Your task to perform on an android device: check android version Image 0: 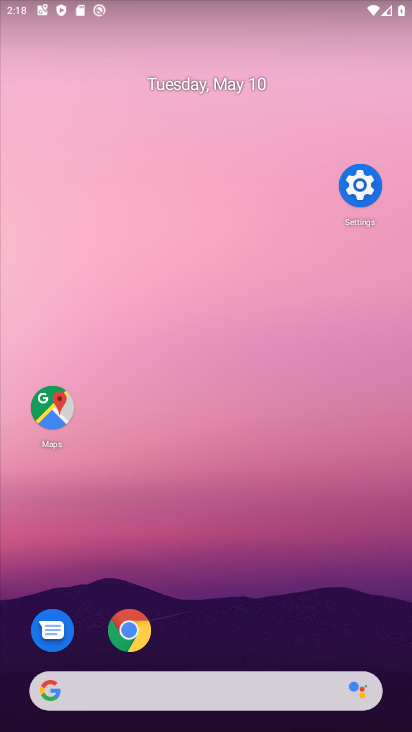
Step 0: drag from (341, 634) to (172, 78)
Your task to perform on an android device: check android version Image 1: 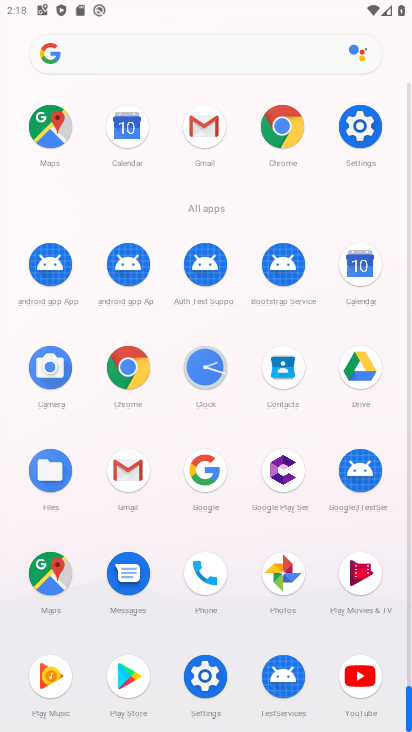
Step 1: click (275, 114)
Your task to perform on an android device: check android version Image 2: 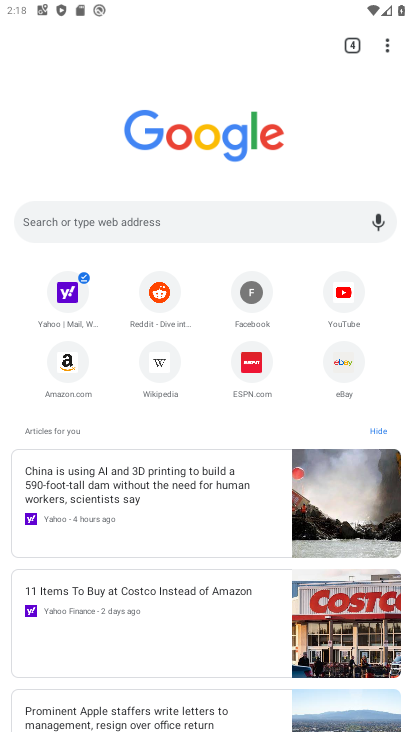
Step 2: press back button
Your task to perform on an android device: check android version Image 3: 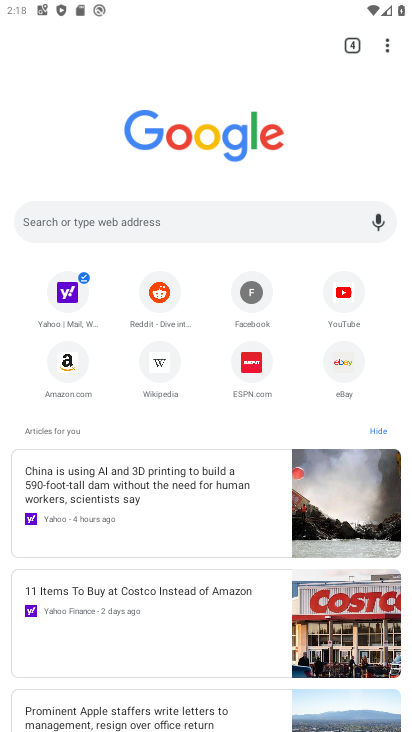
Step 3: press back button
Your task to perform on an android device: check android version Image 4: 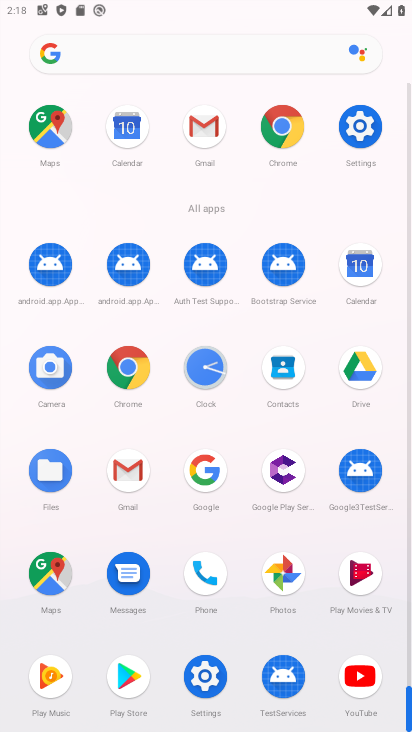
Step 4: press back button
Your task to perform on an android device: check android version Image 5: 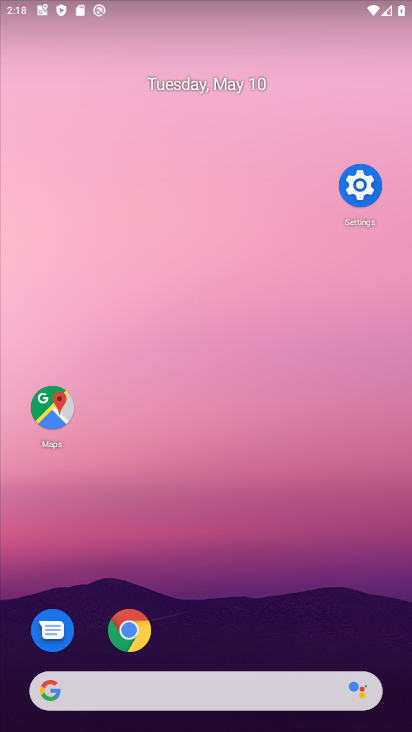
Step 5: drag from (369, 675) to (123, 13)
Your task to perform on an android device: check android version Image 6: 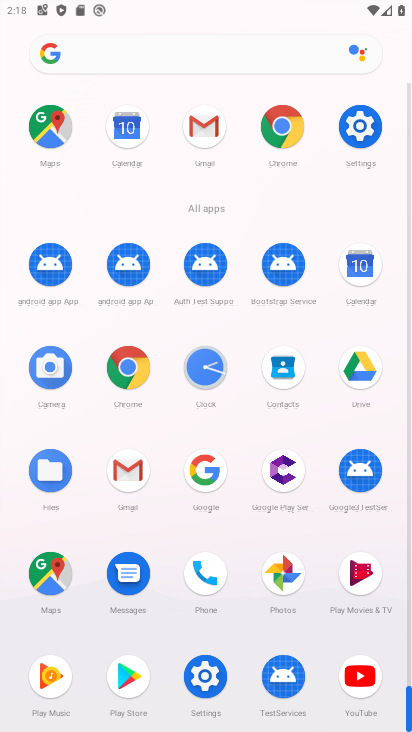
Step 6: click (281, 115)
Your task to perform on an android device: check android version Image 7: 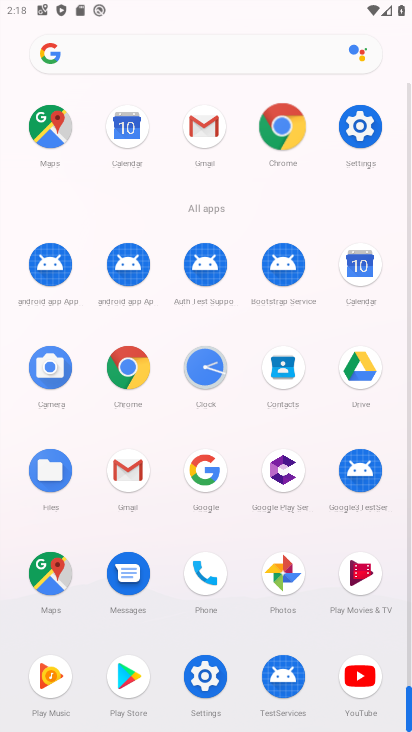
Step 7: click (281, 115)
Your task to perform on an android device: check android version Image 8: 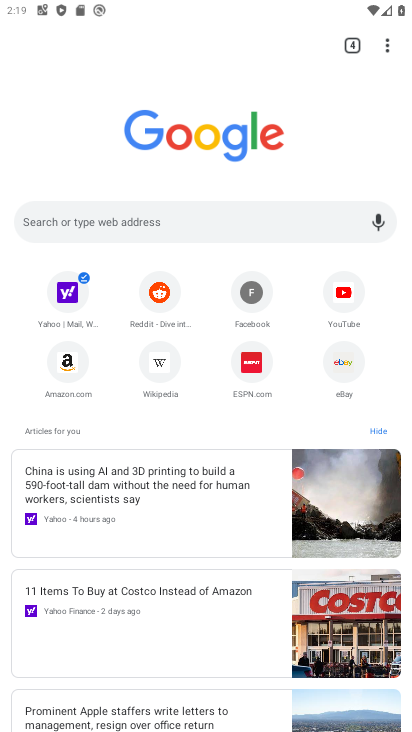
Step 8: click (103, 216)
Your task to perform on an android device: check android version Image 9: 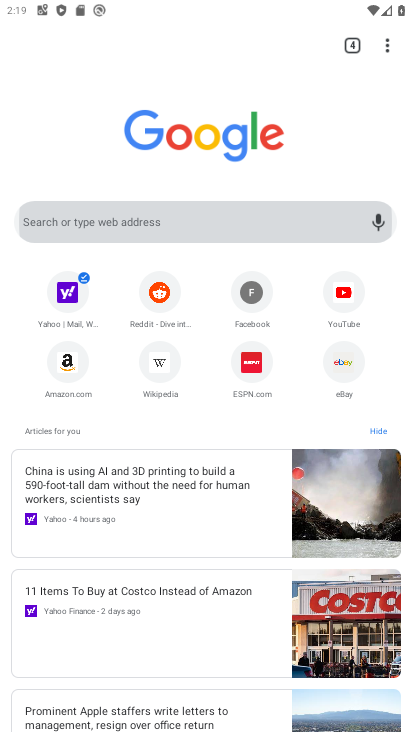
Step 9: click (103, 216)
Your task to perform on an android device: check android version Image 10: 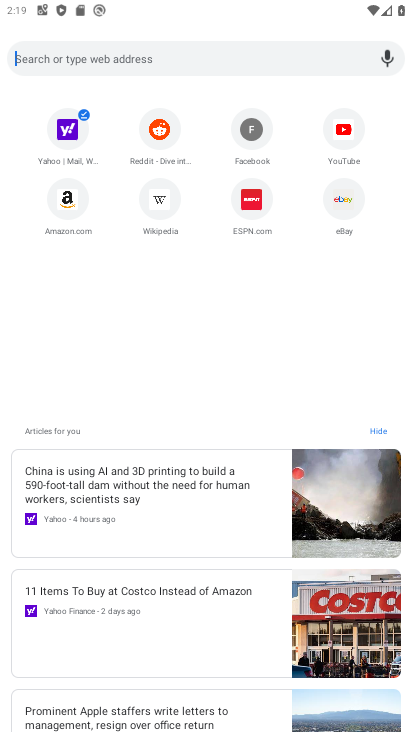
Step 10: click (101, 215)
Your task to perform on an android device: check android version Image 11: 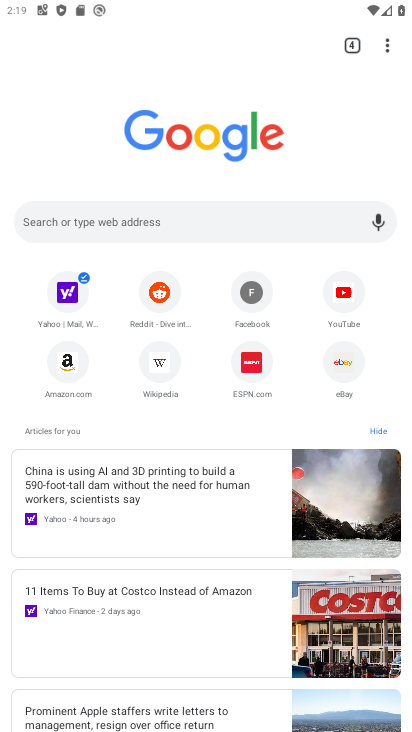
Step 11: press back button
Your task to perform on an android device: check android version Image 12: 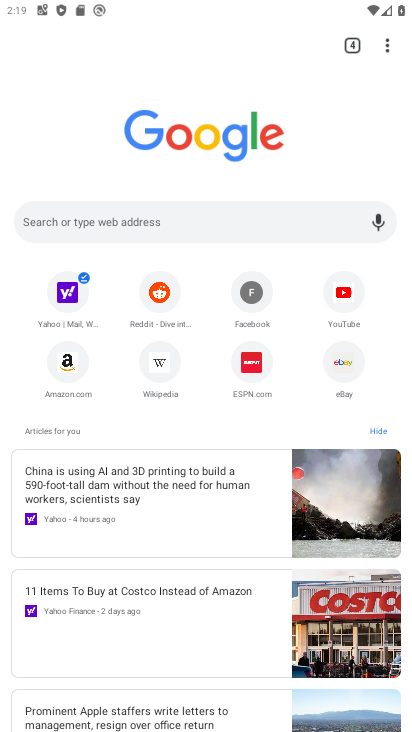
Step 12: press back button
Your task to perform on an android device: check android version Image 13: 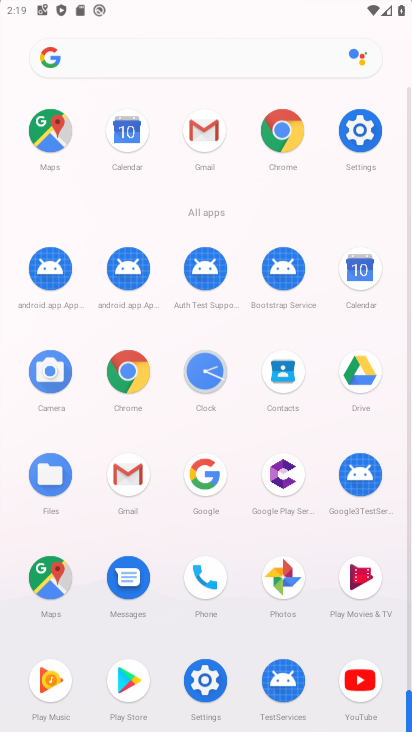
Step 13: press back button
Your task to perform on an android device: check android version Image 14: 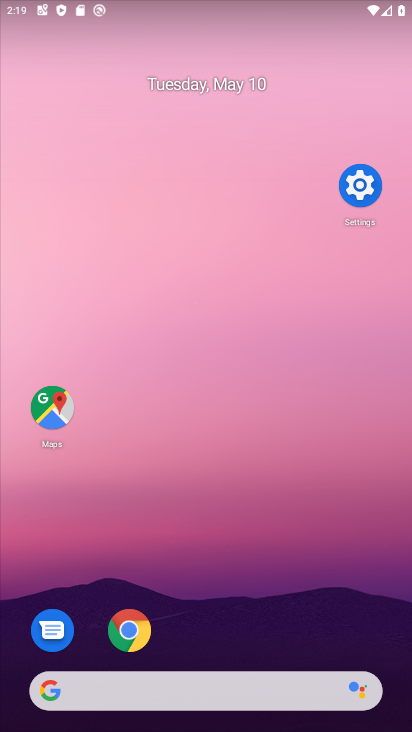
Step 14: drag from (209, 311) to (175, 79)
Your task to perform on an android device: check android version Image 15: 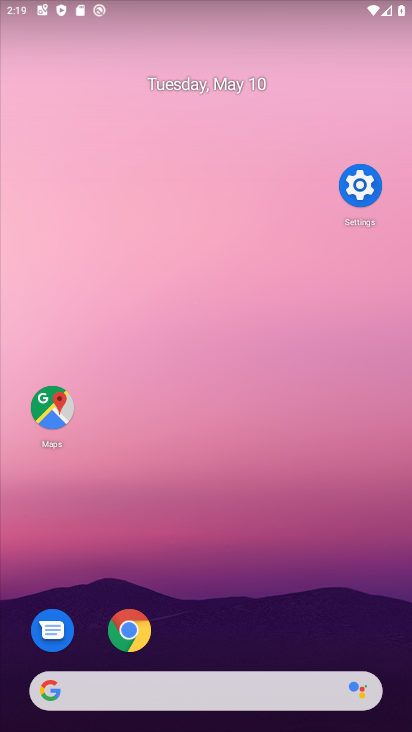
Step 15: drag from (308, 542) to (151, 11)
Your task to perform on an android device: check android version Image 16: 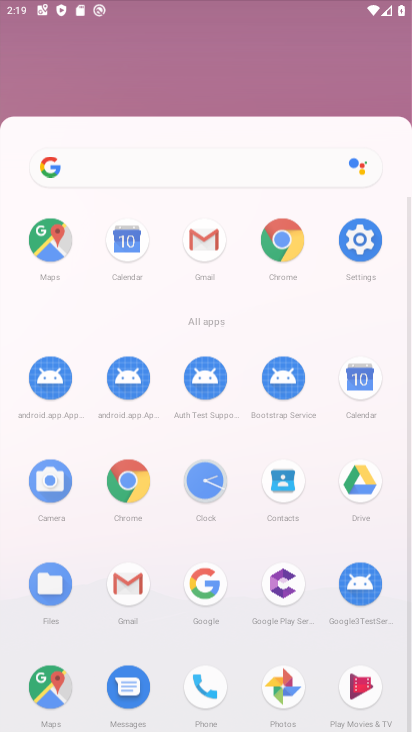
Step 16: drag from (156, 334) to (102, 11)
Your task to perform on an android device: check android version Image 17: 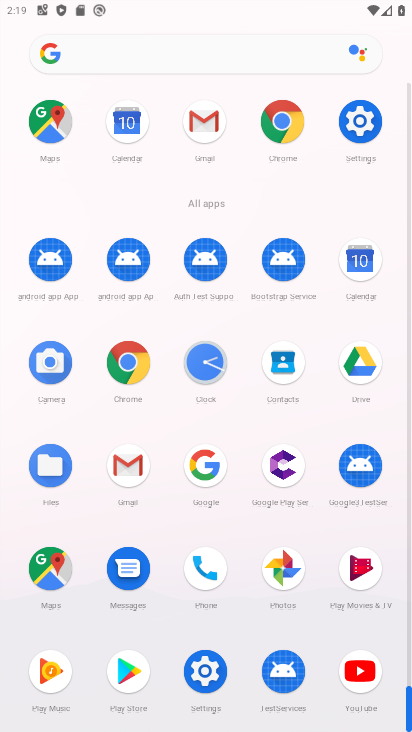
Step 17: click (285, 130)
Your task to perform on an android device: check android version Image 18: 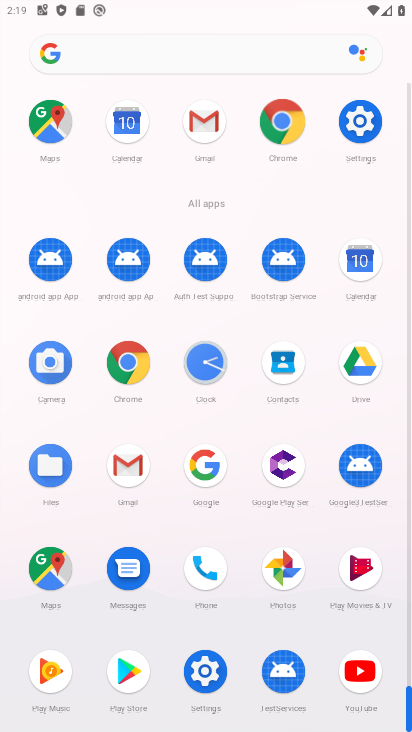
Step 18: click (285, 129)
Your task to perform on an android device: check android version Image 19: 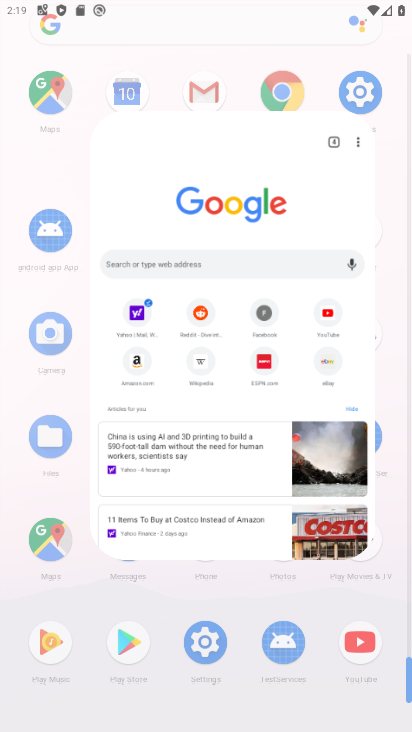
Step 19: click (285, 129)
Your task to perform on an android device: check android version Image 20: 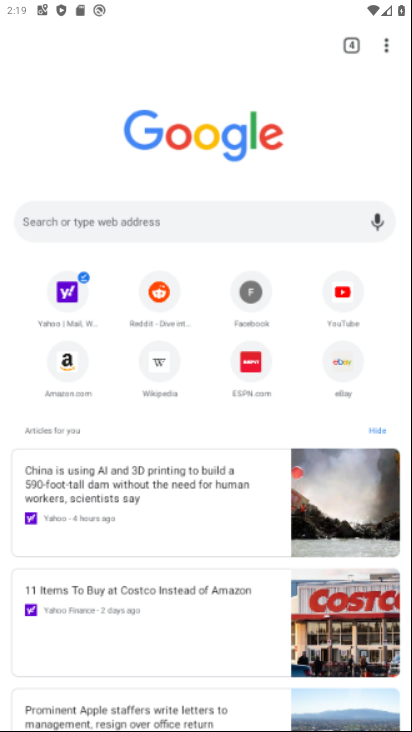
Step 20: click (285, 129)
Your task to perform on an android device: check android version Image 21: 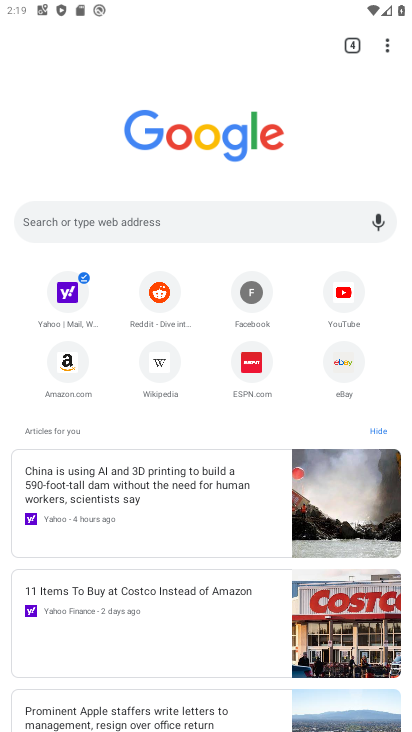
Step 21: press back button
Your task to perform on an android device: check android version Image 22: 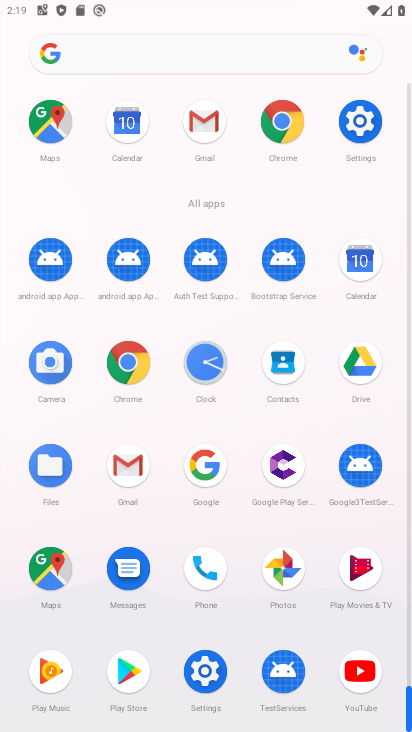
Step 22: click (366, 131)
Your task to perform on an android device: check android version Image 23: 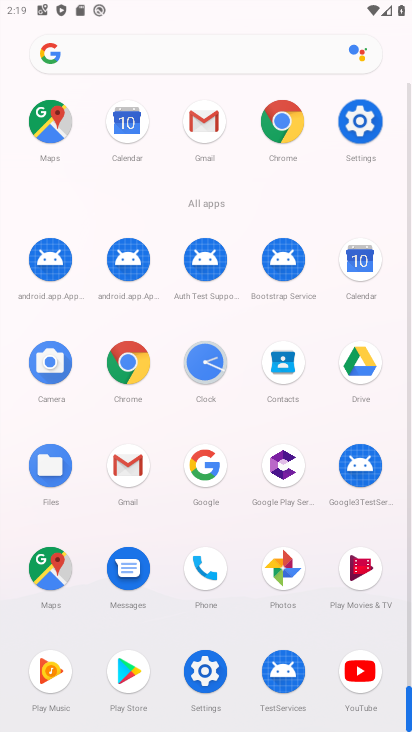
Step 23: click (365, 130)
Your task to perform on an android device: check android version Image 24: 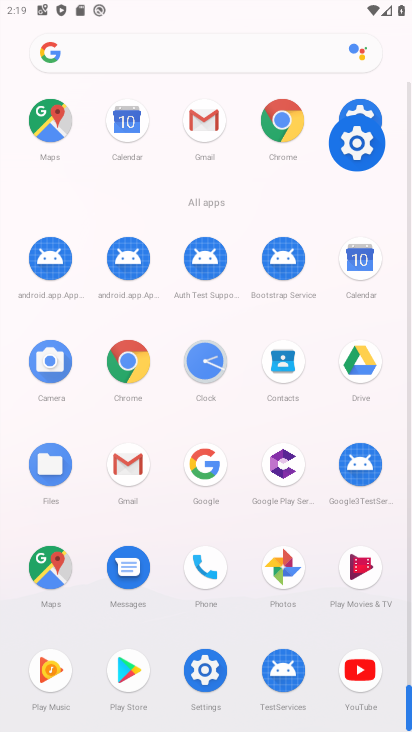
Step 24: click (364, 131)
Your task to perform on an android device: check android version Image 25: 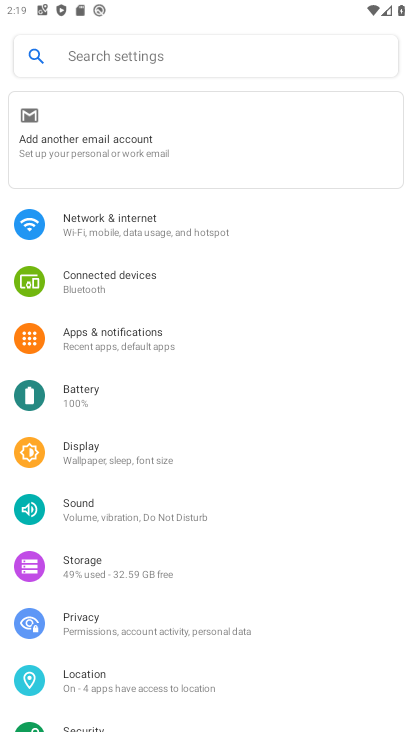
Step 25: drag from (157, 548) to (32, 91)
Your task to perform on an android device: check android version Image 26: 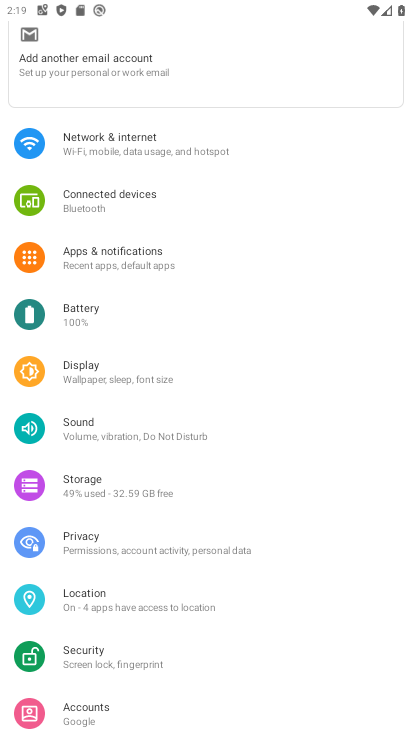
Step 26: drag from (142, 467) to (83, 150)
Your task to perform on an android device: check android version Image 27: 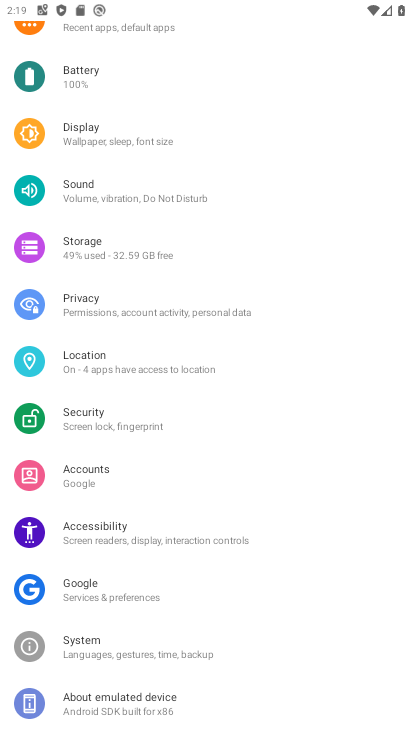
Step 27: click (110, 699)
Your task to perform on an android device: check android version Image 28: 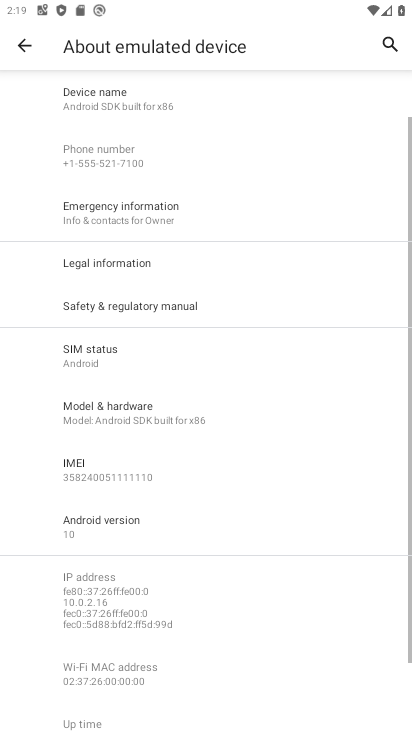
Step 28: task complete